Your task to perform on an android device: Add "razer blade" to the cart on bestbuy.com, then select checkout. Image 0: 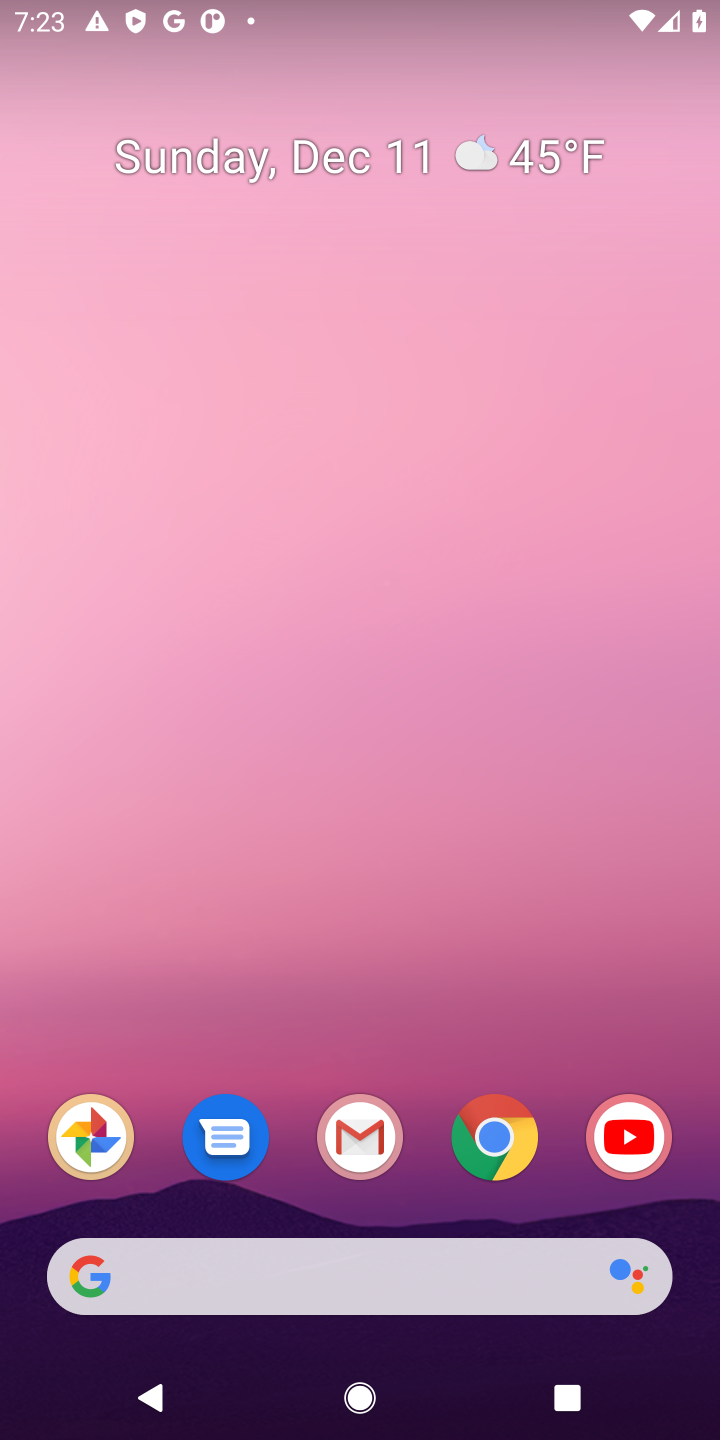
Step 0: click (513, 1167)
Your task to perform on an android device: Add "razer blade" to the cart on bestbuy.com, then select checkout. Image 1: 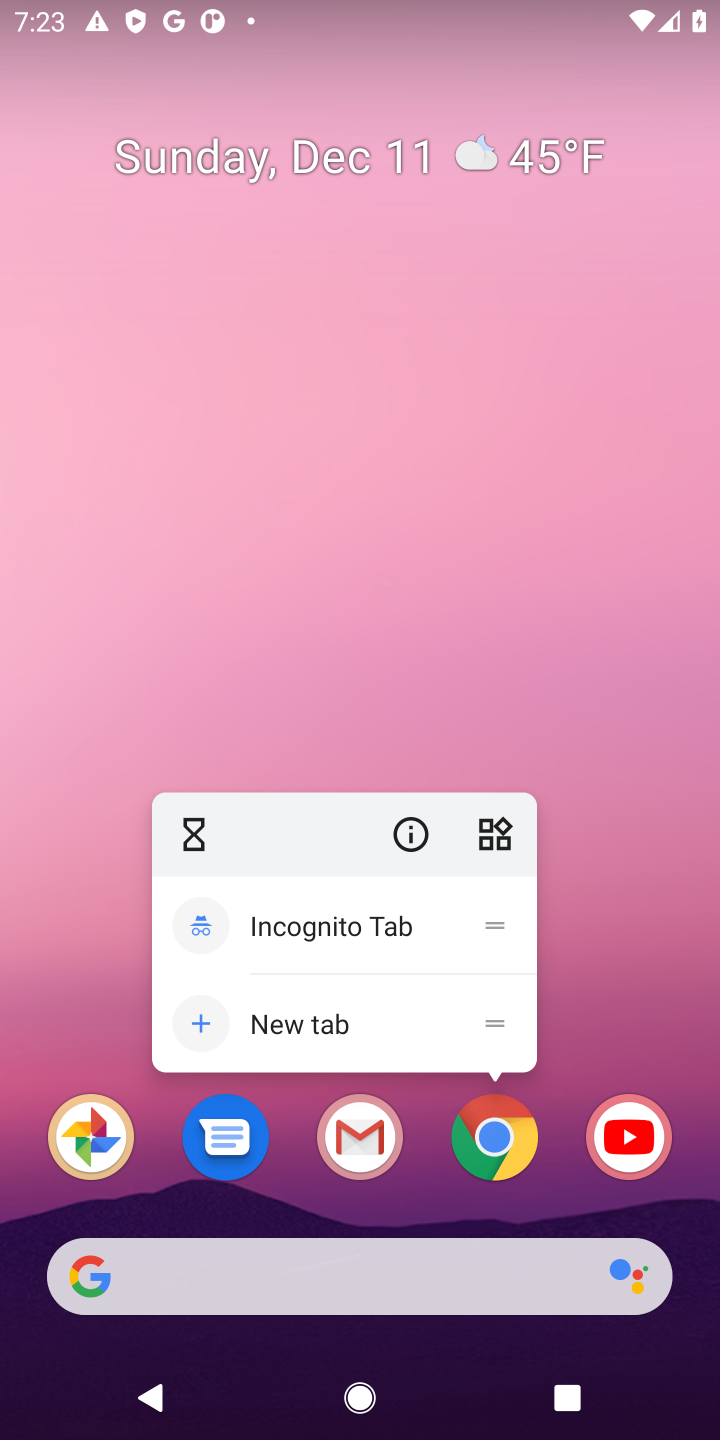
Step 1: click (367, 1031)
Your task to perform on an android device: Add "razer blade" to the cart on bestbuy.com, then select checkout. Image 2: 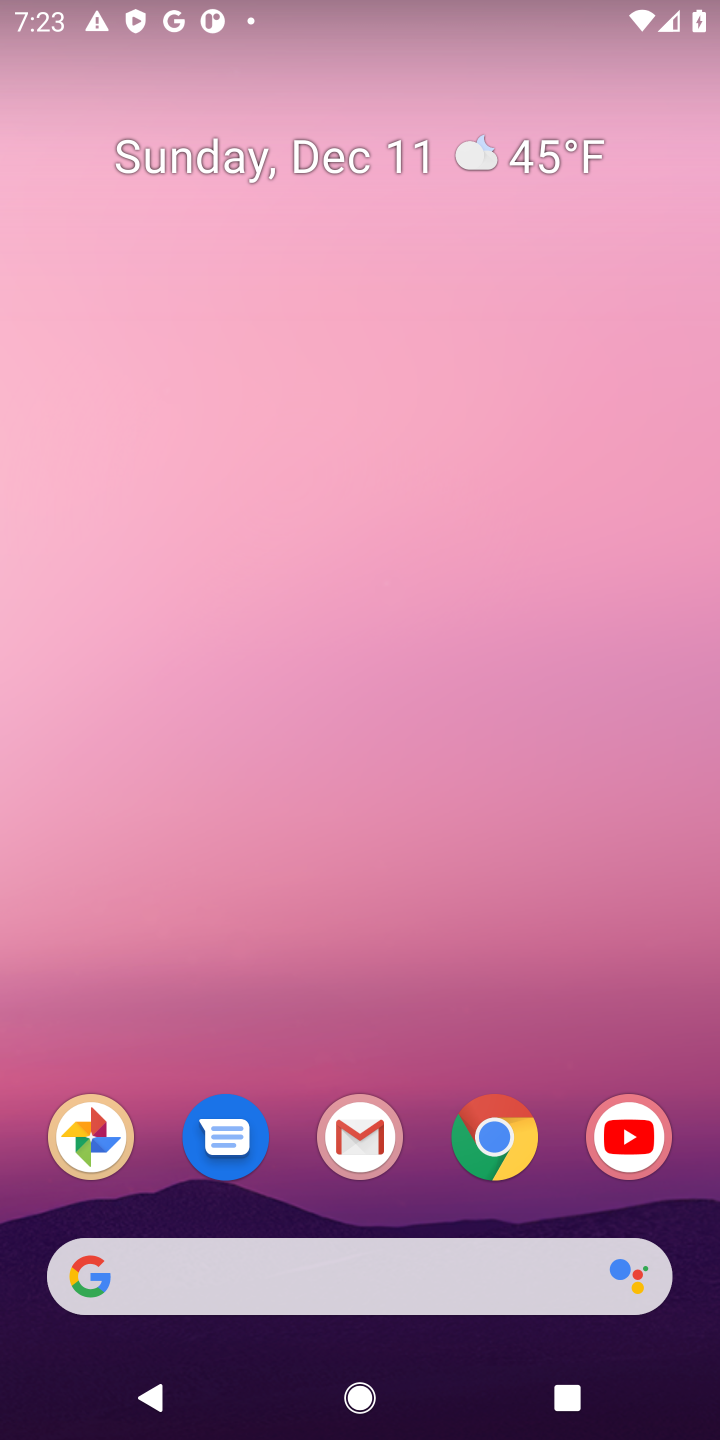
Step 2: click (496, 1150)
Your task to perform on an android device: Add "razer blade" to the cart on bestbuy.com, then select checkout. Image 3: 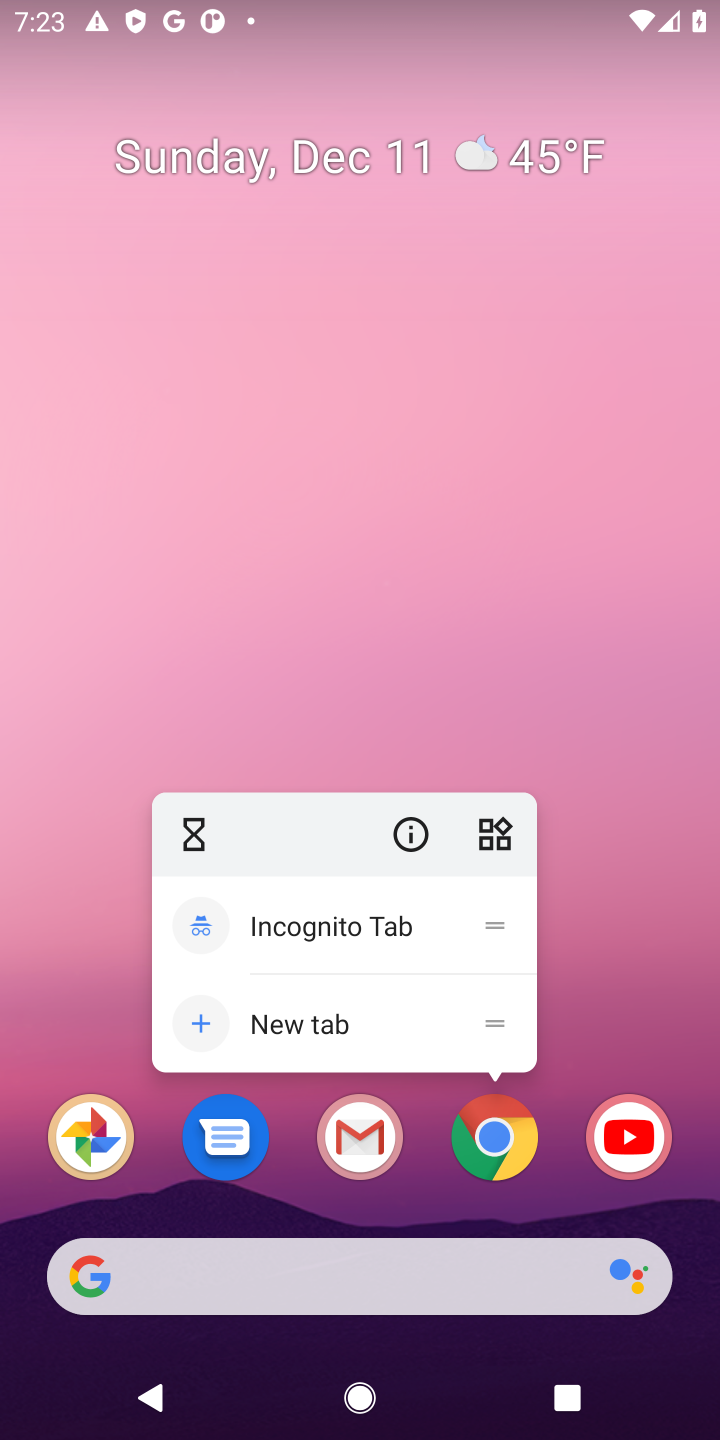
Step 3: click (310, 1037)
Your task to perform on an android device: Add "razer blade" to the cart on bestbuy.com, then select checkout. Image 4: 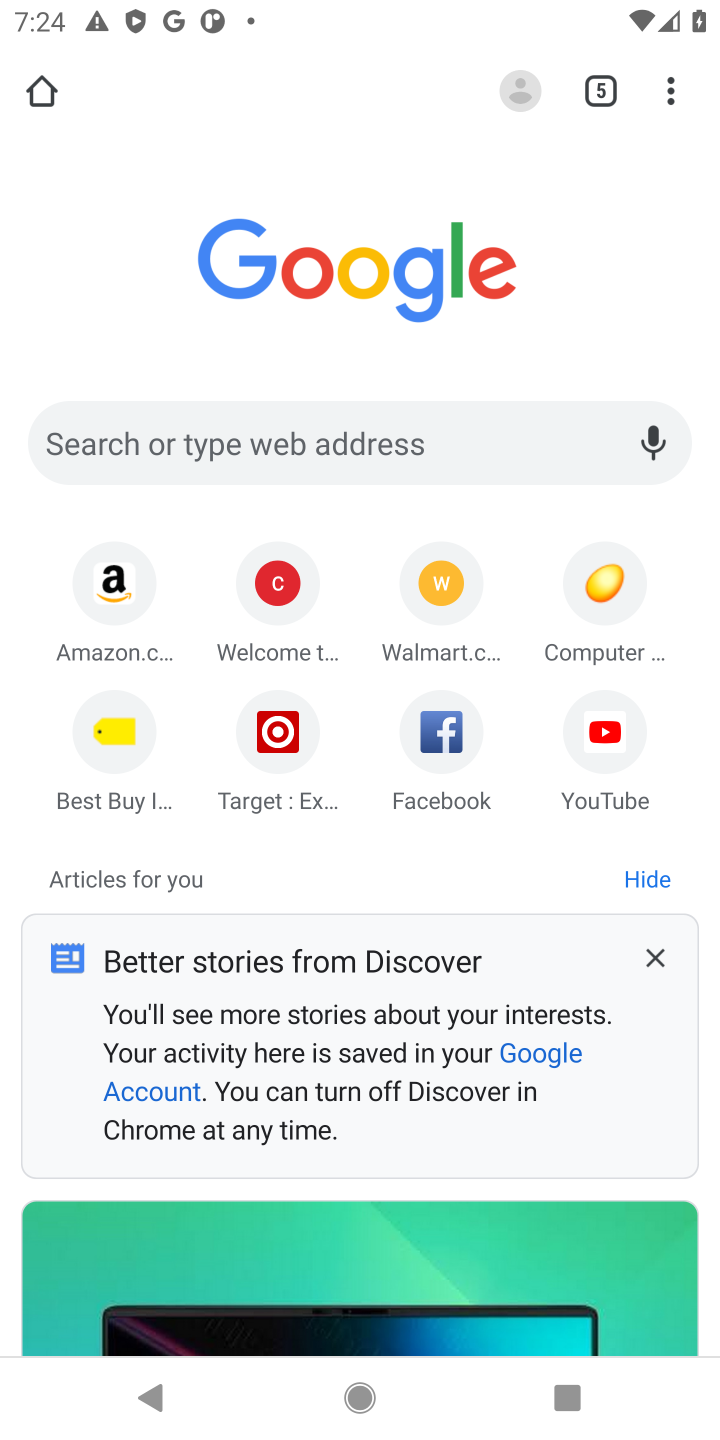
Step 4: click (111, 745)
Your task to perform on an android device: Add "razer blade" to the cart on bestbuy.com, then select checkout. Image 5: 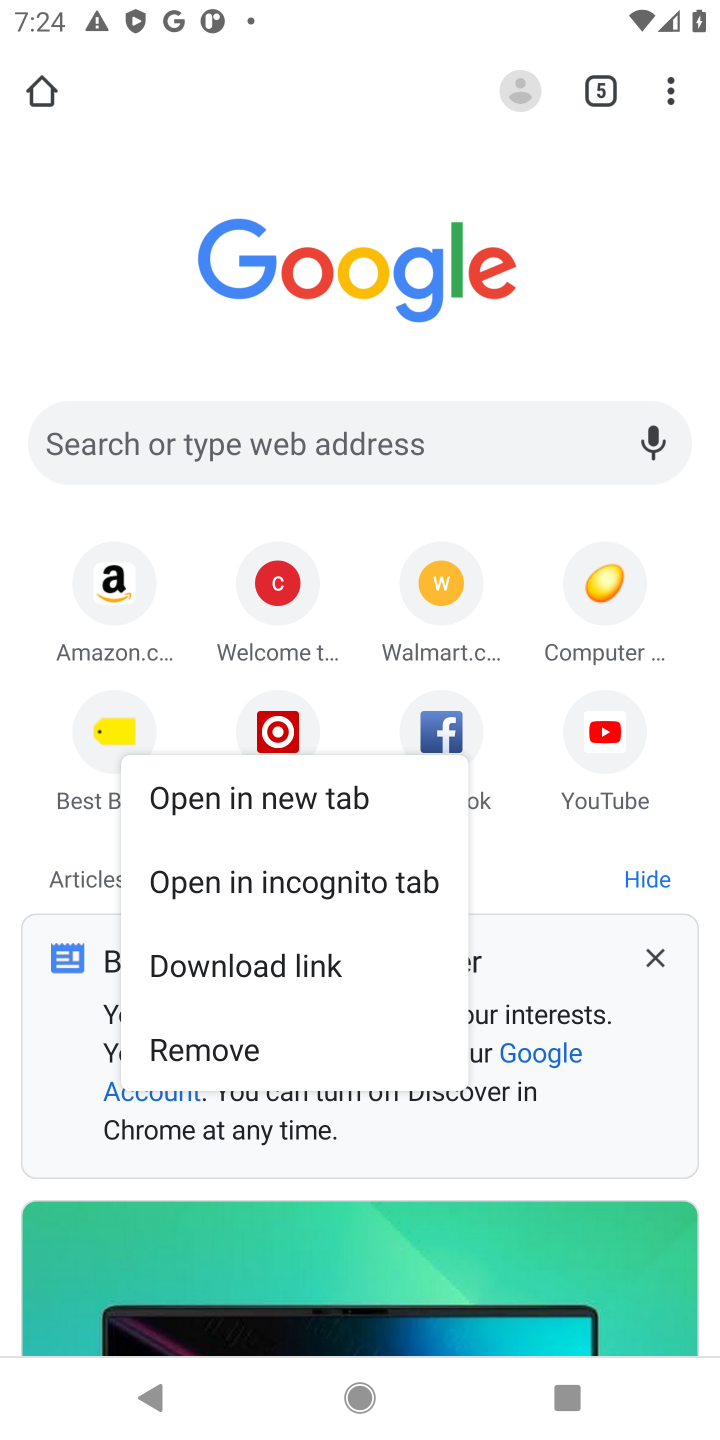
Step 5: click (101, 743)
Your task to perform on an android device: Add "razer blade" to the cart on bestbuy.com, then select checkout. Image 6: 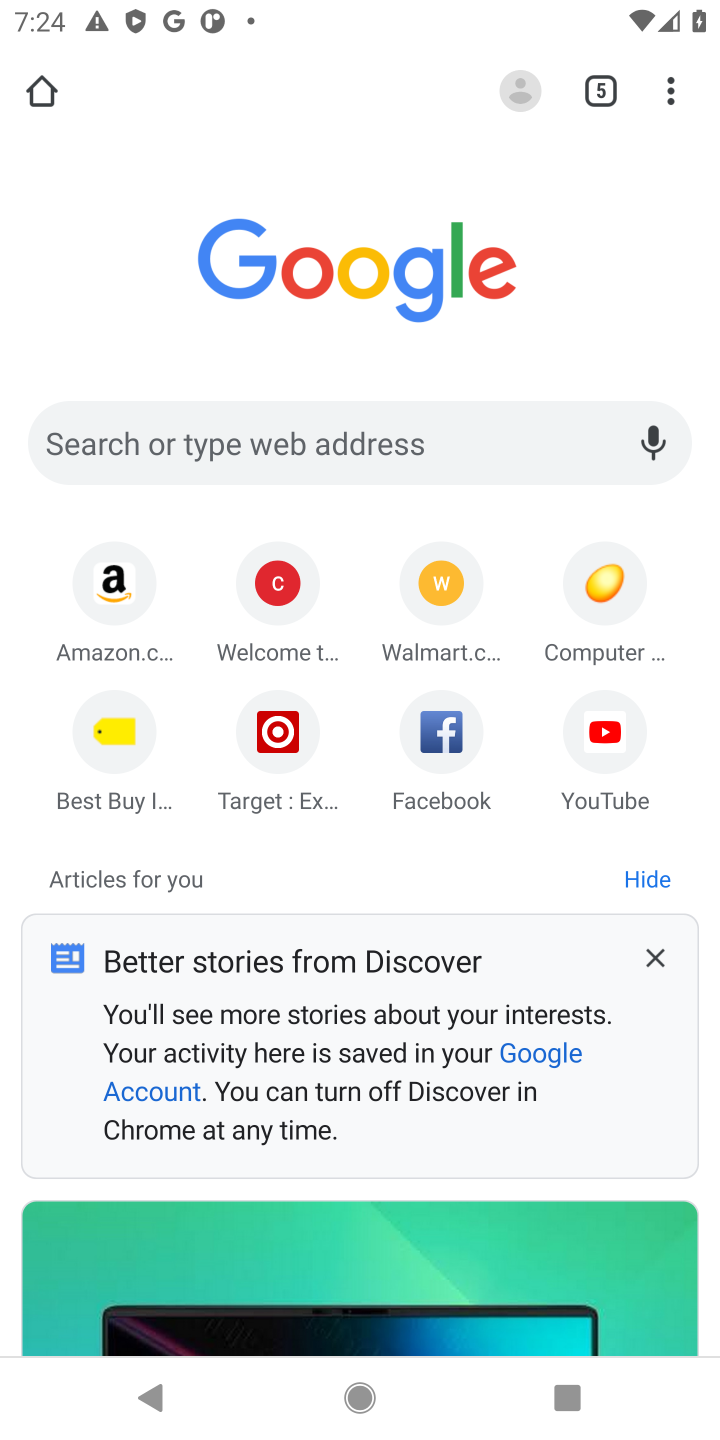
Step 6: click (101, 743)
Your task to perform on an android device: Add "razer blade" to the cart on bestbuy.com, then select checkout. Image 7: 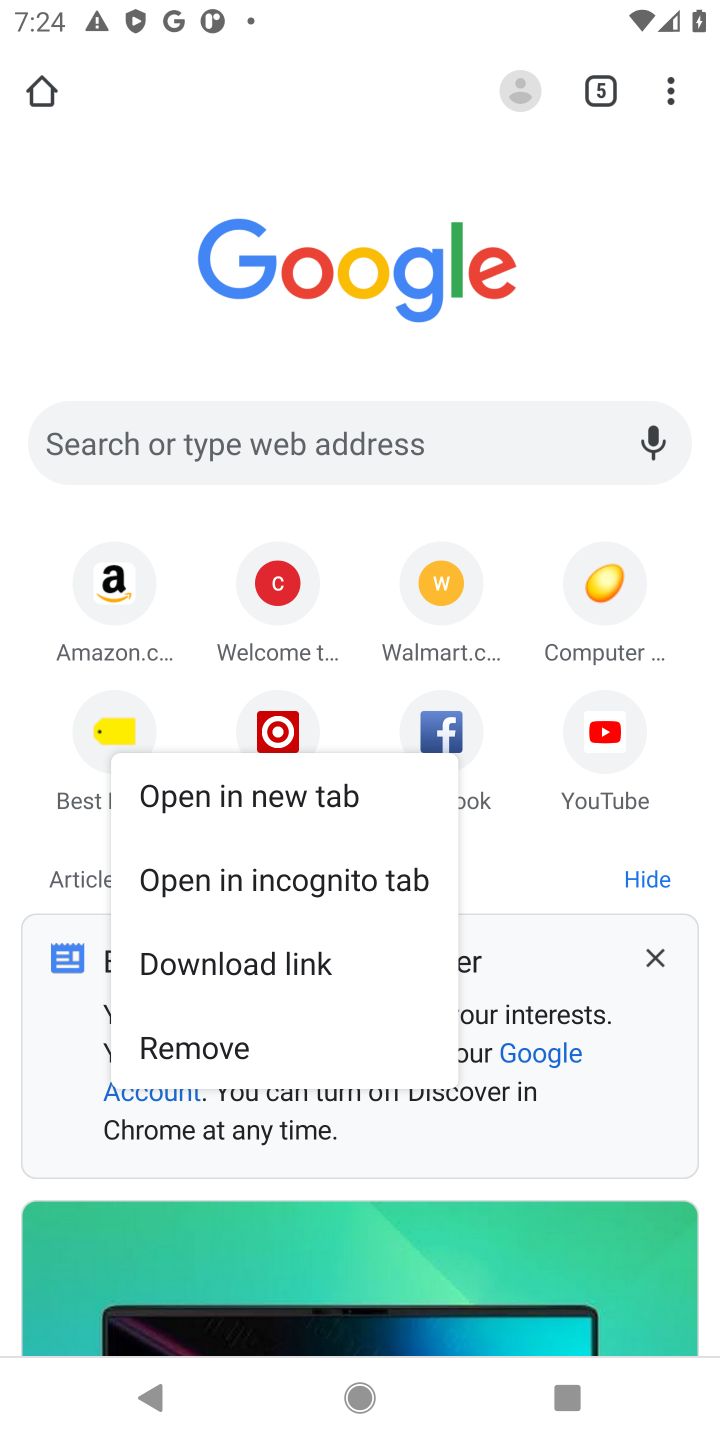
Step 7: click (101, 743)
Your task to perform on an android device: Add "razer blade" to the cart on bestbuy.com, then select checkout. Image 8: 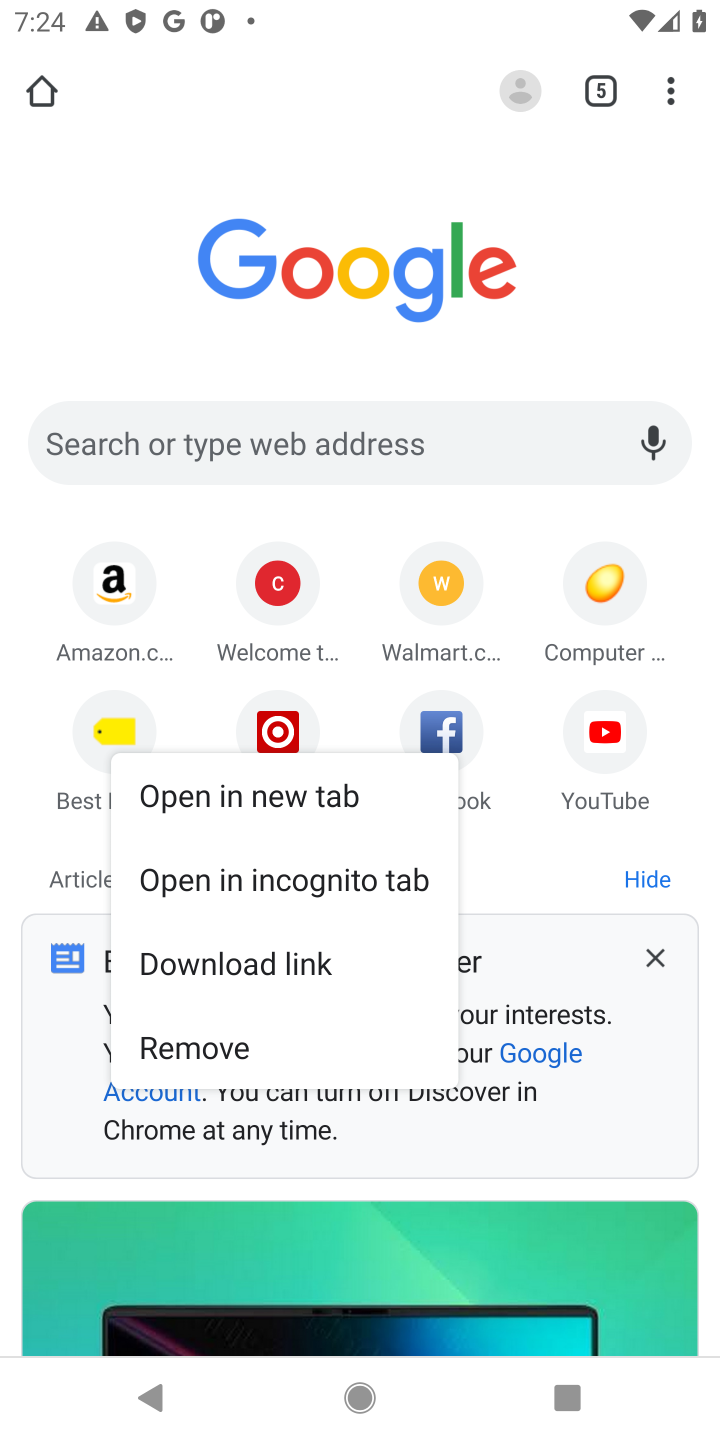
Step 8: click (254, 809)
Your task to perform on an android device: Add "razer blade" to the cart on bestbuy.com, then select checkout. Image 9: 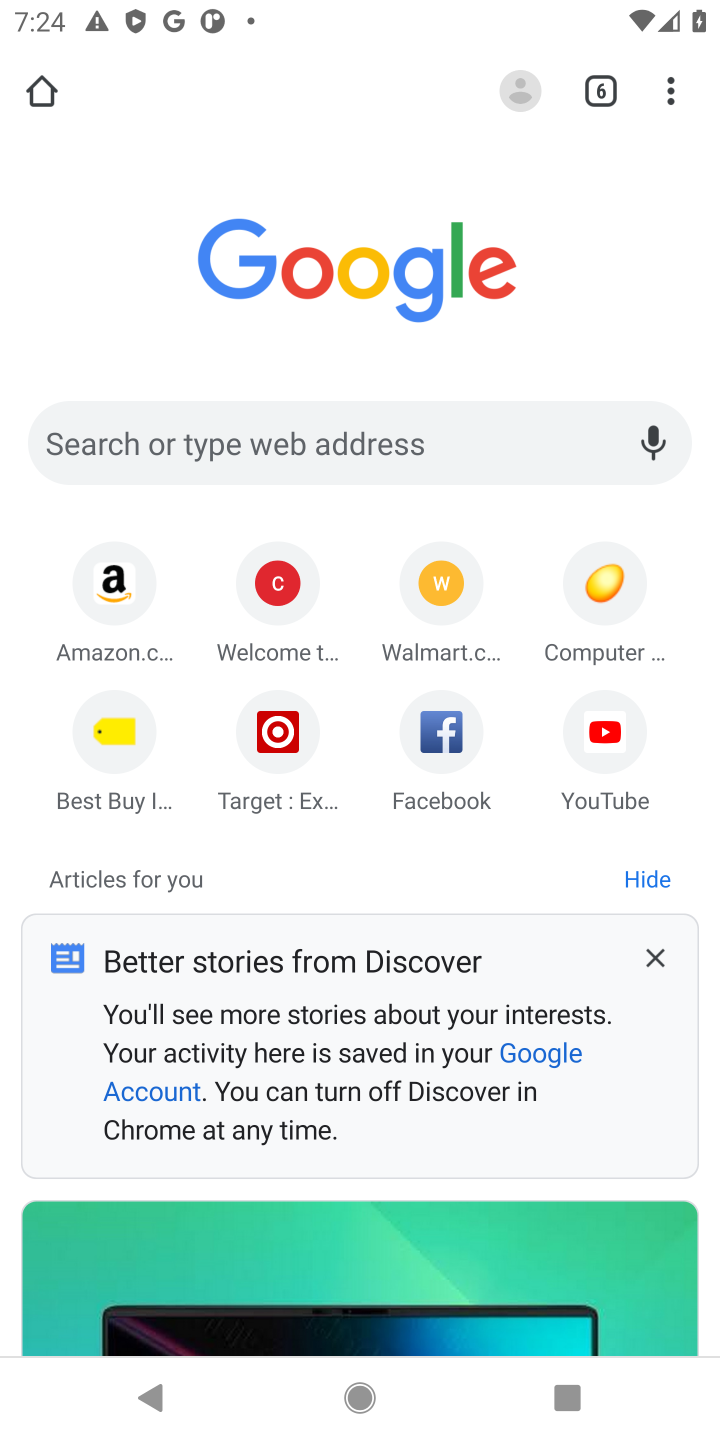
Step 9: click (117, 729)
Your task to perform on an android device: Add "razer blade" to the cart on bestbuy.com, then select checkout. Image 10: 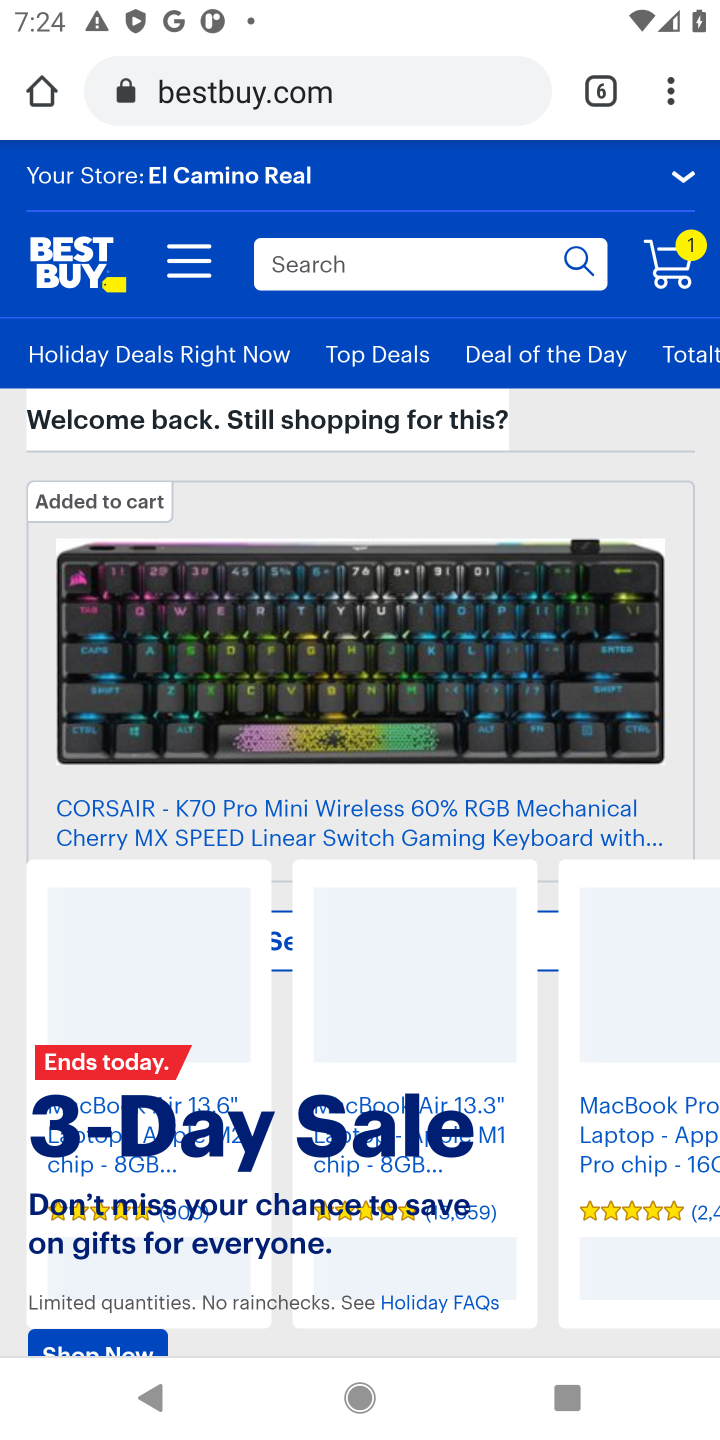
Step 10: click (356, 249)
Your task to perform on an android device: Add "razer blade" to the cart on bestbuy.com, then select checkout. Image 11: 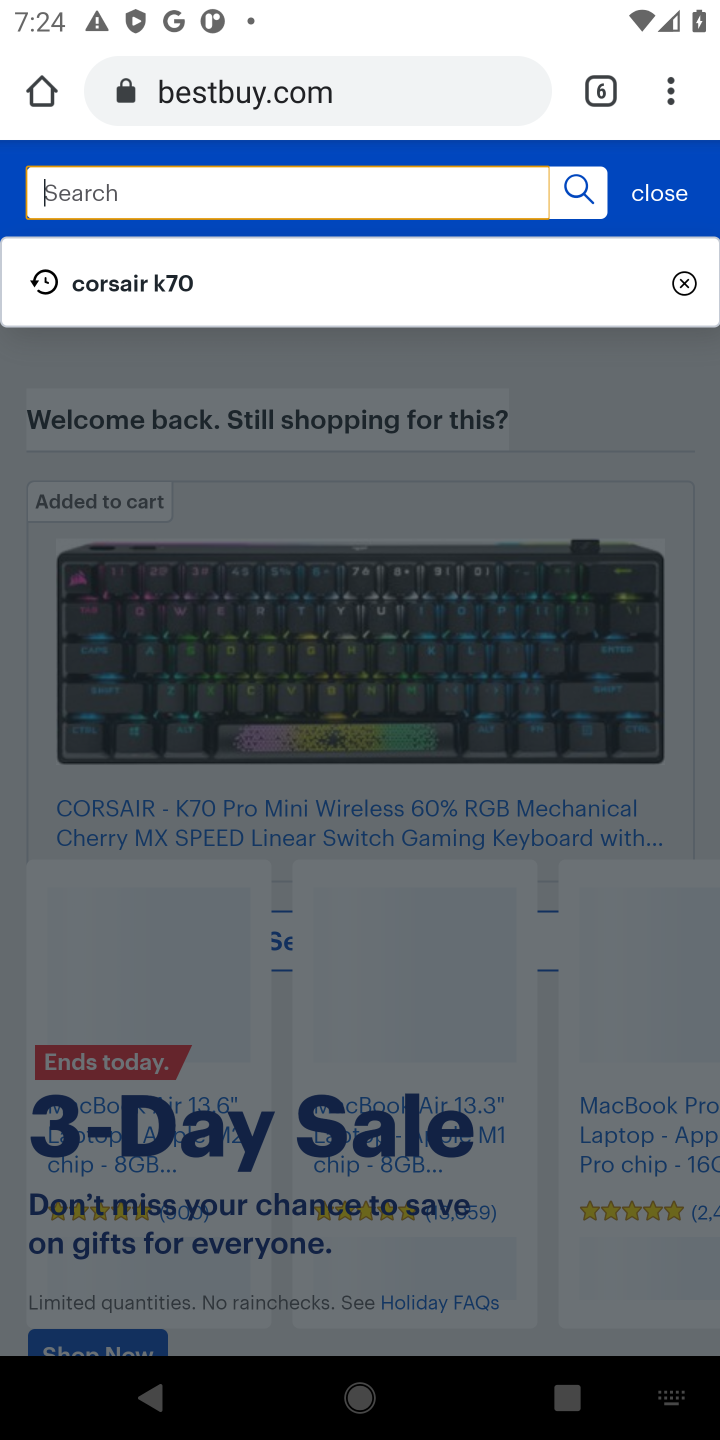
Step 11: type "razer blade"
Your task to perform on an android device: Add "razer blade" to the cart on bestbuy.com, then select checkout. Image 12: 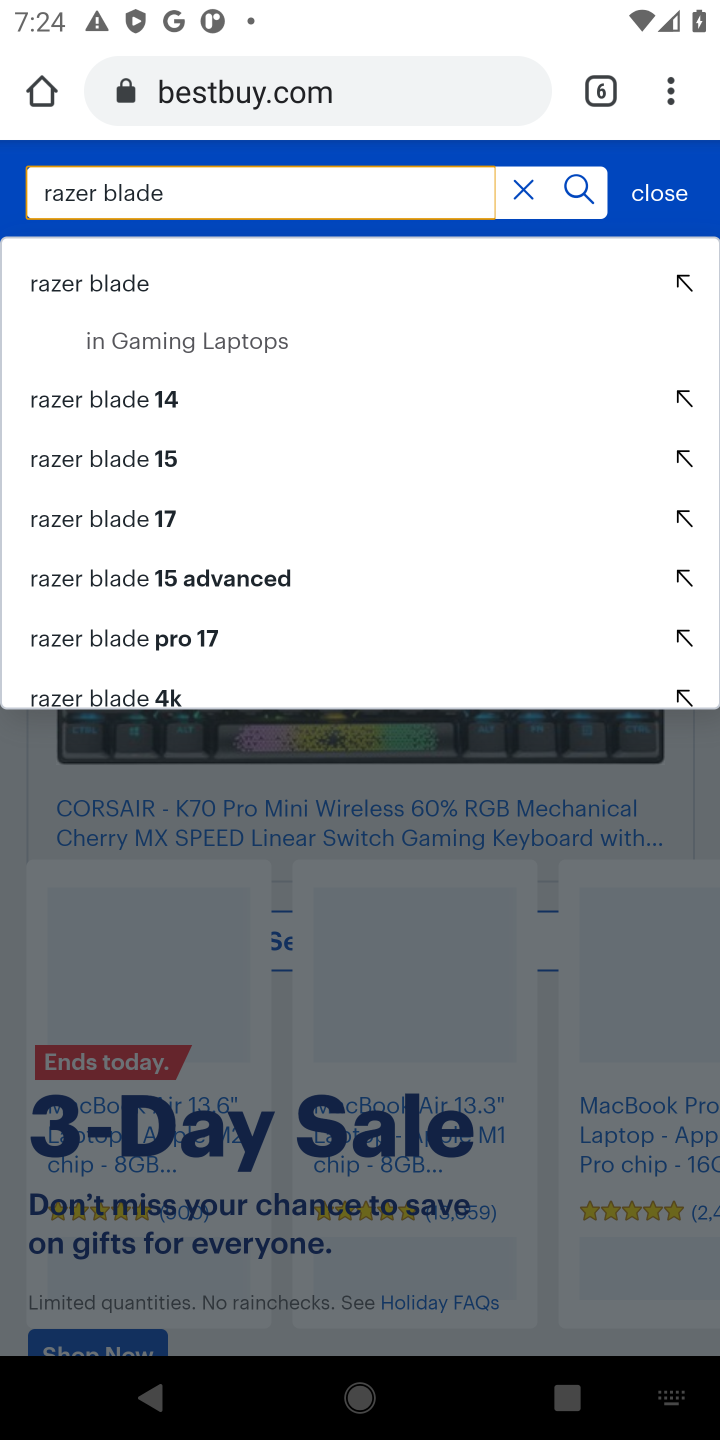
Step 12: click (581, 181)
Your task to perform on an android device: Add "razer blade" to the cart on bestbuy.com, then select checkout. Image 13: 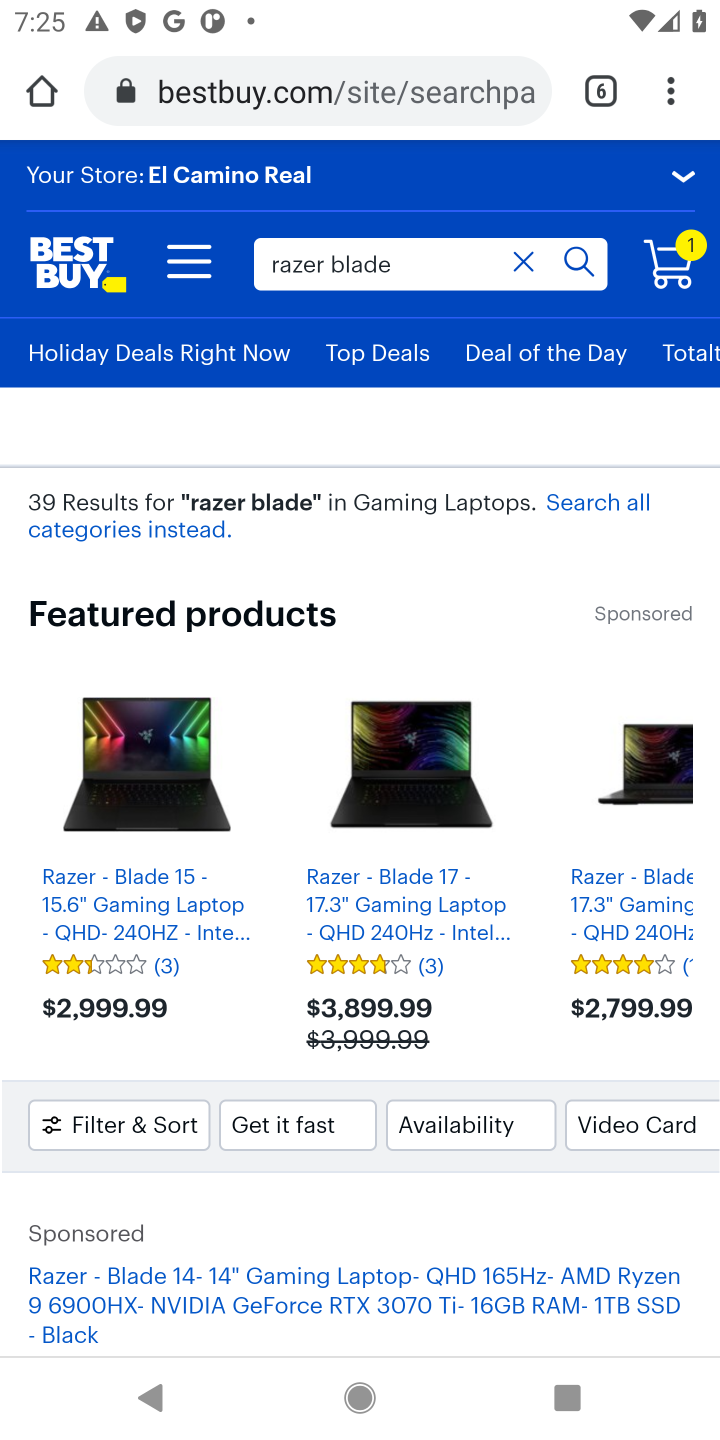
Step 13: click (160, 916)
Your task to perform on an android device: Add "razer blade" to the cart on bestbuy.com, then select checkout. Image 14: 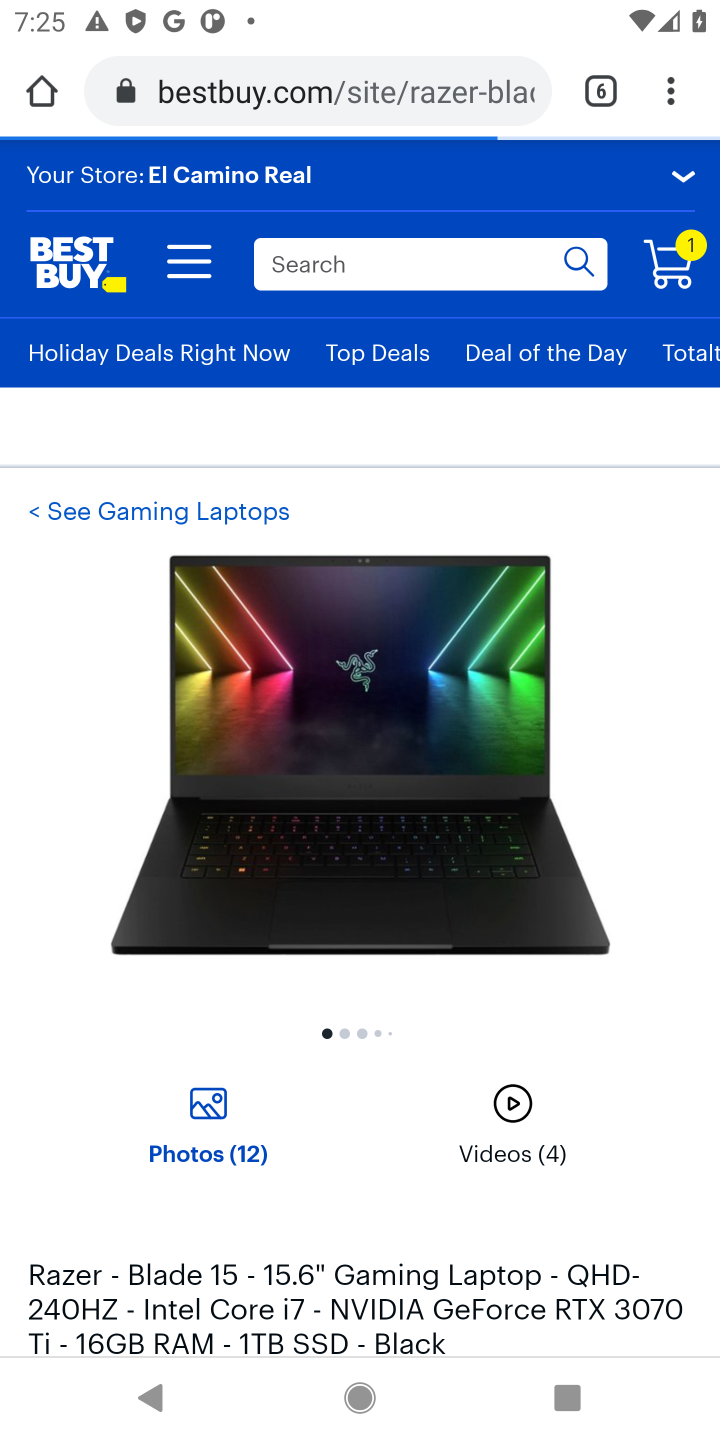
Step 14: drag from (278, 1238) to (279, 323)
Your task to perform on an android device: Add "razer blade" to the cart on bestbuy.com, then select checkout. Image 15: 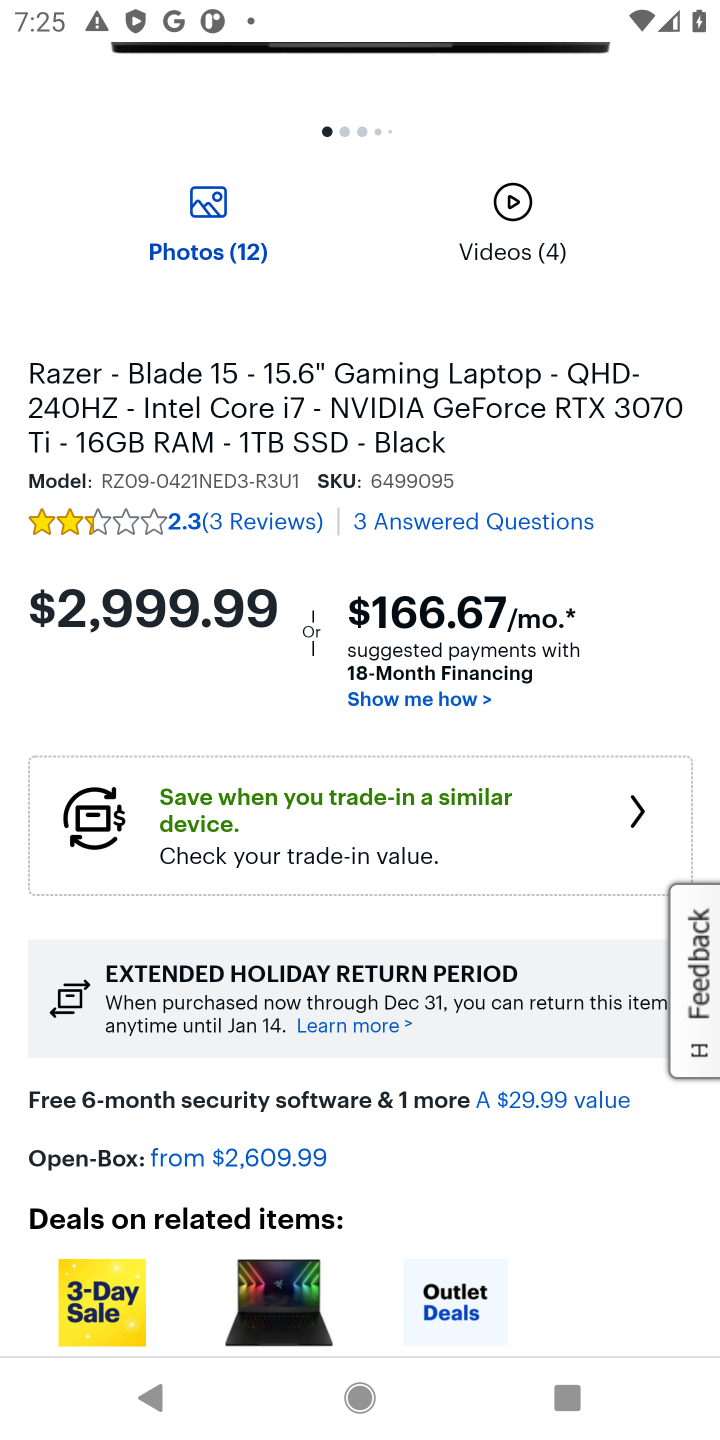
Step 15: drag from (280, 1142) to (239, 311)
Your task to perform on an android device: Add "razer blade" to the cart on bestbuy.com, then select checkout. Image 16: 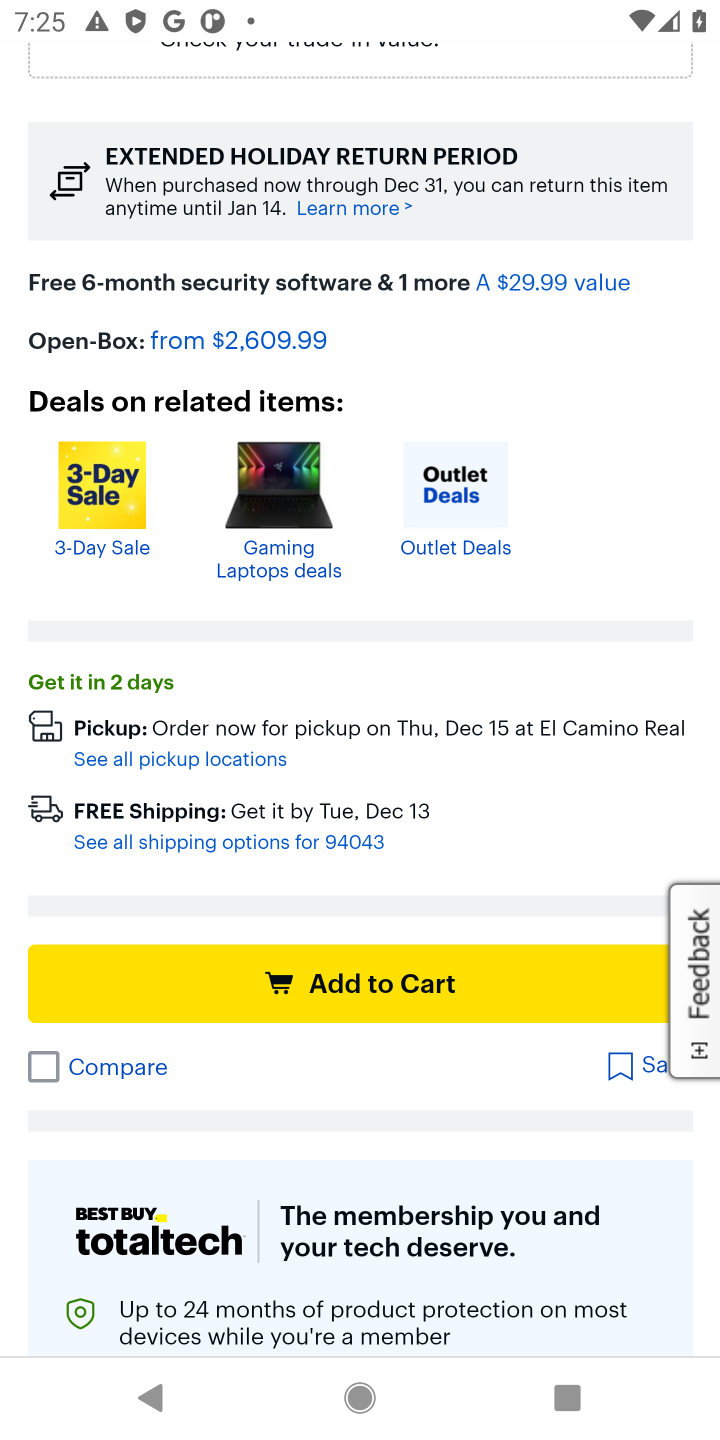
Step 16: click (246, 955)
Your task to perform on an android device: Add "razer blade" to the cart on bestbuy.com, then select checkout. Image 17: 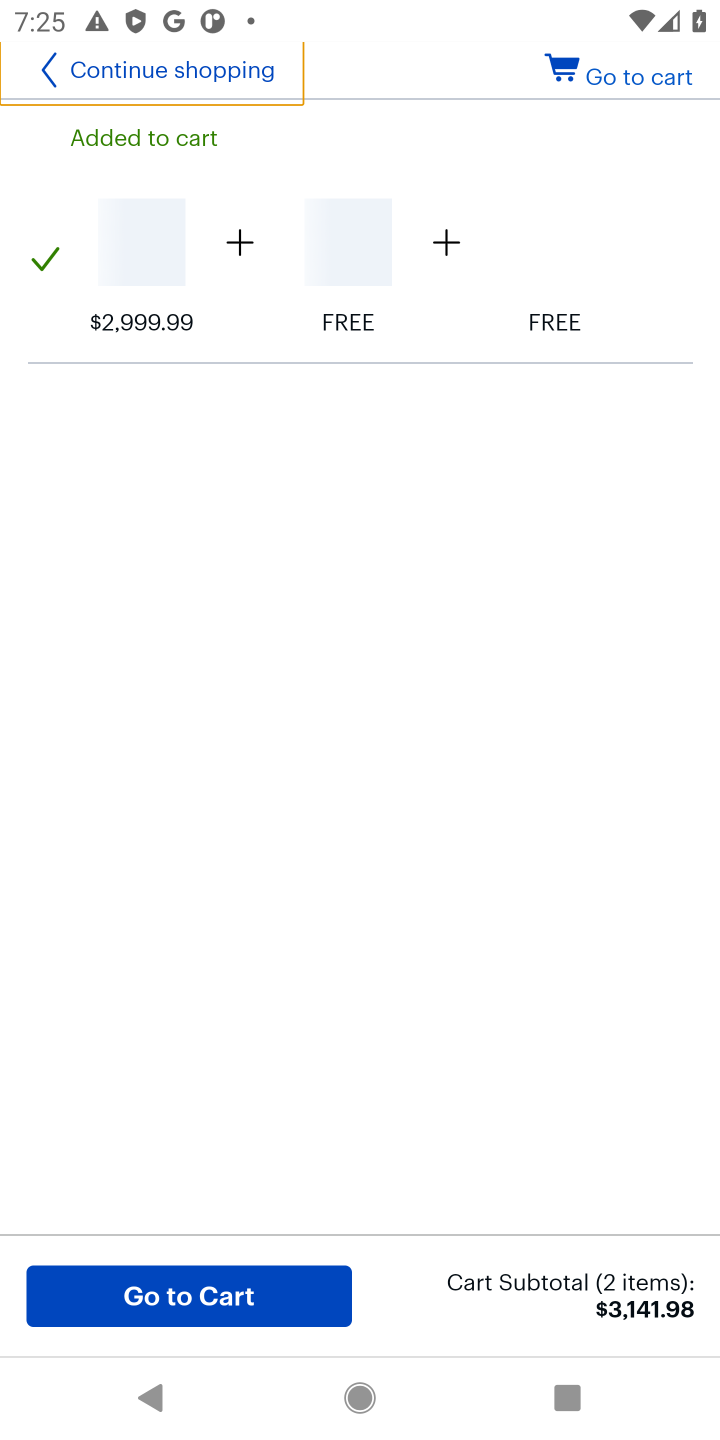
Step 17: click (180, 1284)
Your task to perform on an android device: Add "razer blade" to the cart on bestbuy.com, then select checkout. Image 18: 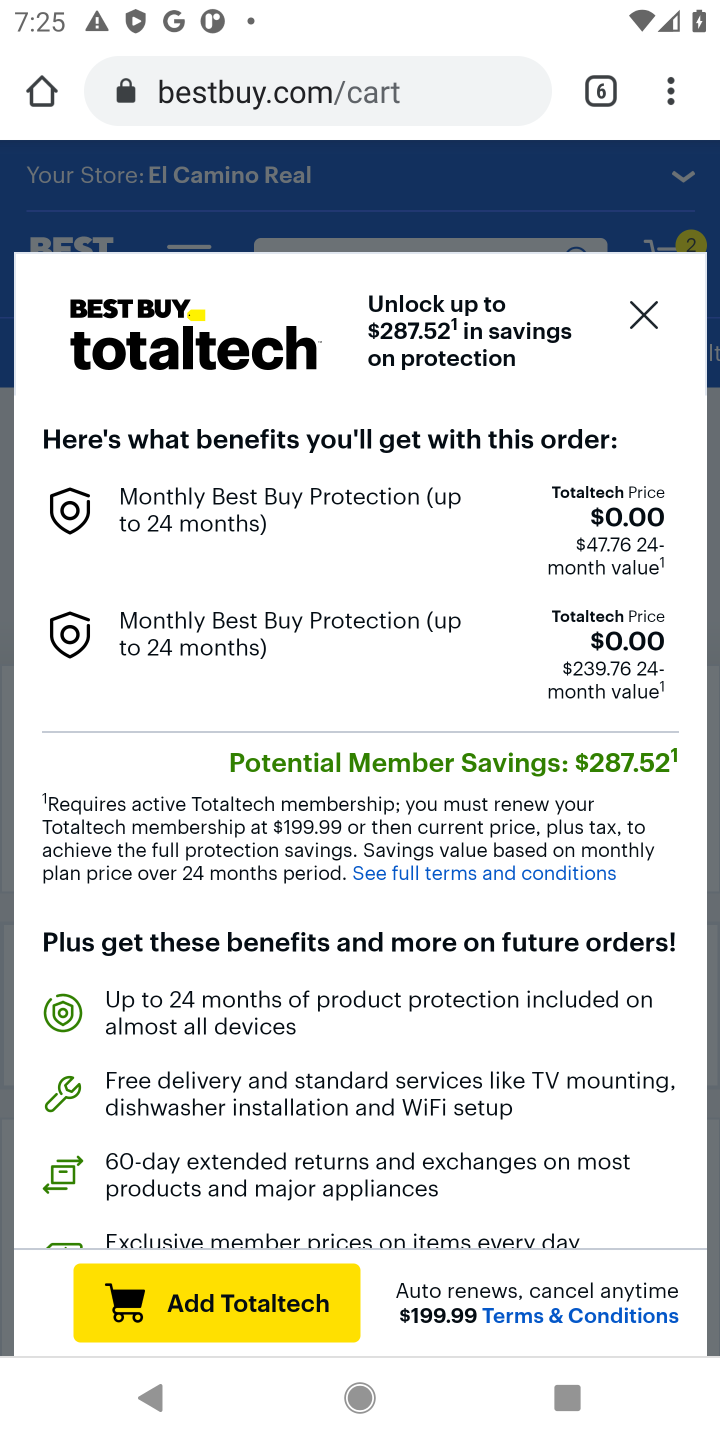
Step 18: click (441, 812)
Your task to perform on an android device: Add "razer blade" to the cart on bestbuy.com, then select checkout. Image 19: 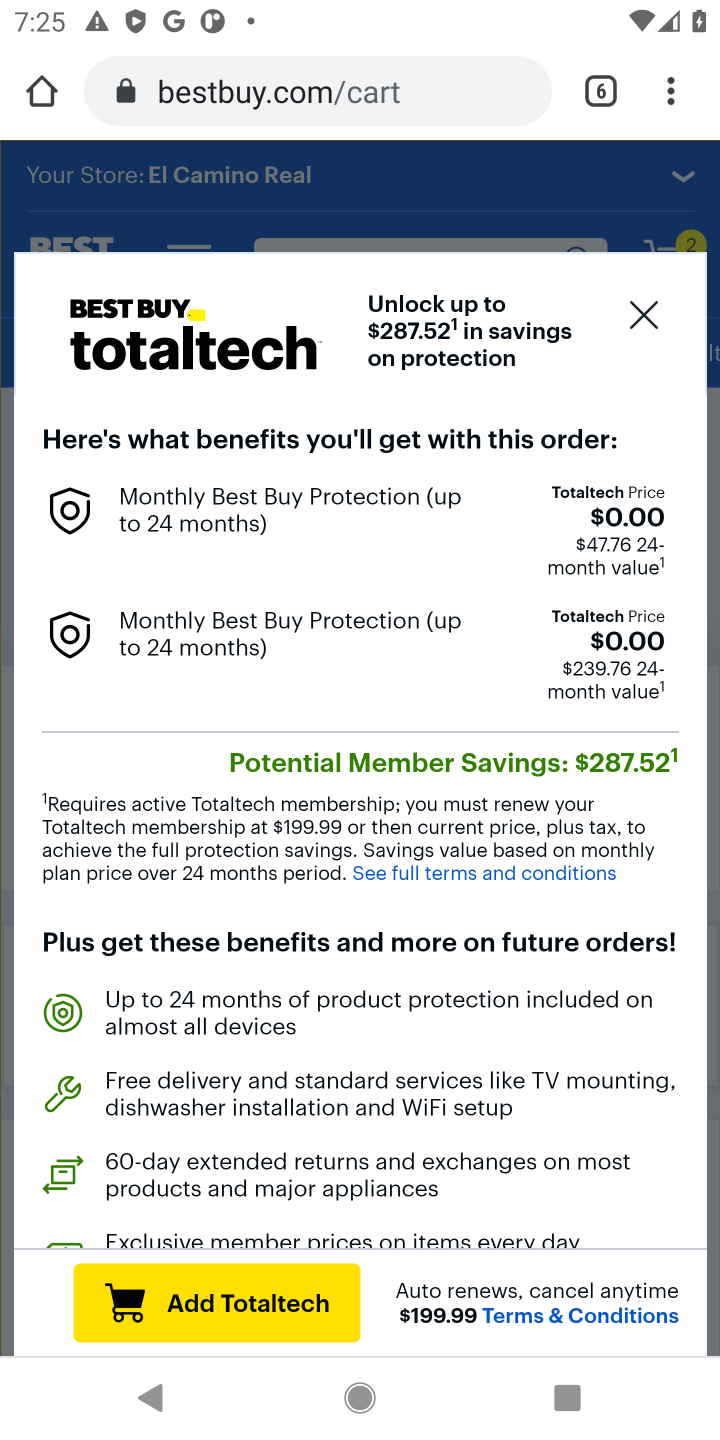
Step 19: click (634, 330)
Your task to perform on an android device: Add "razer blade" to the cart on bestbuy.com, then select checkout. Image 20: 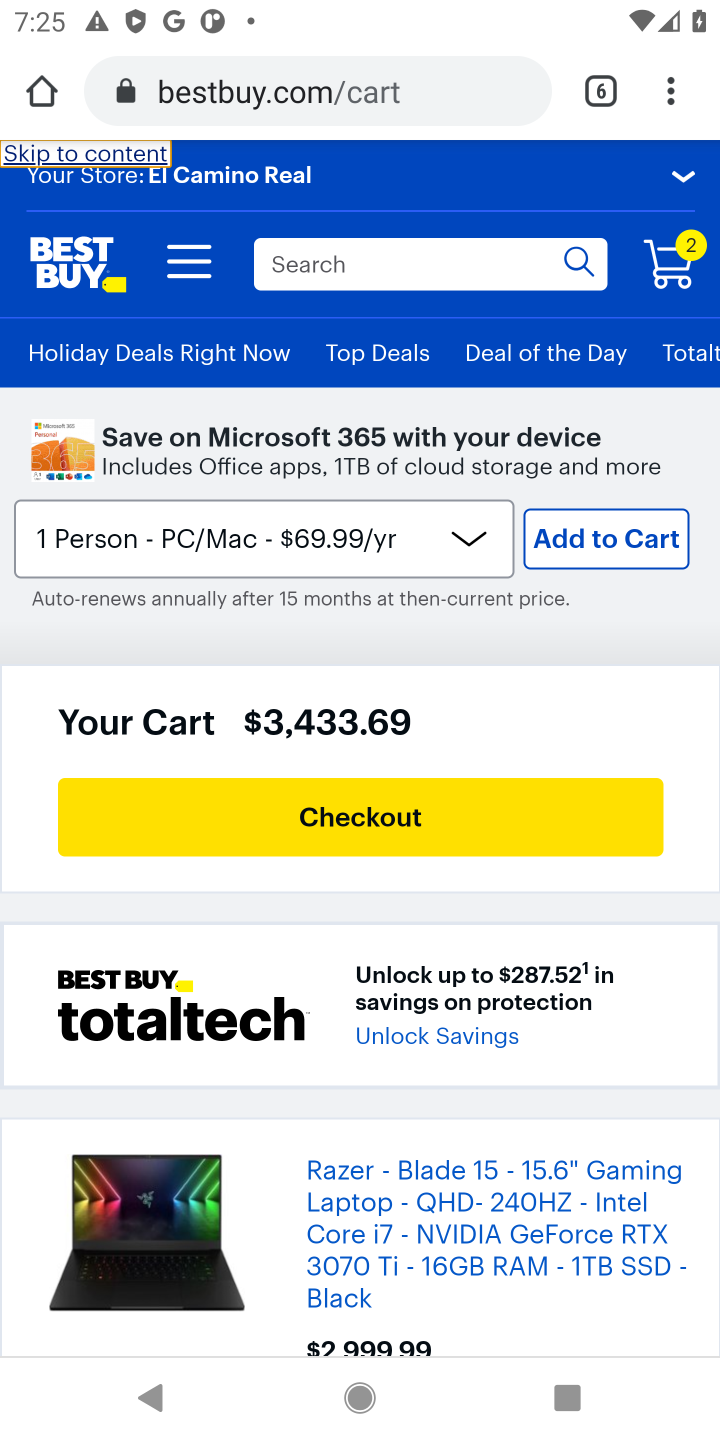
Step 20: click (307, 833)
Your task to perform on an android device: Add "razer blade" to the cart on bestbuy.com, then select checkout. Image 21: 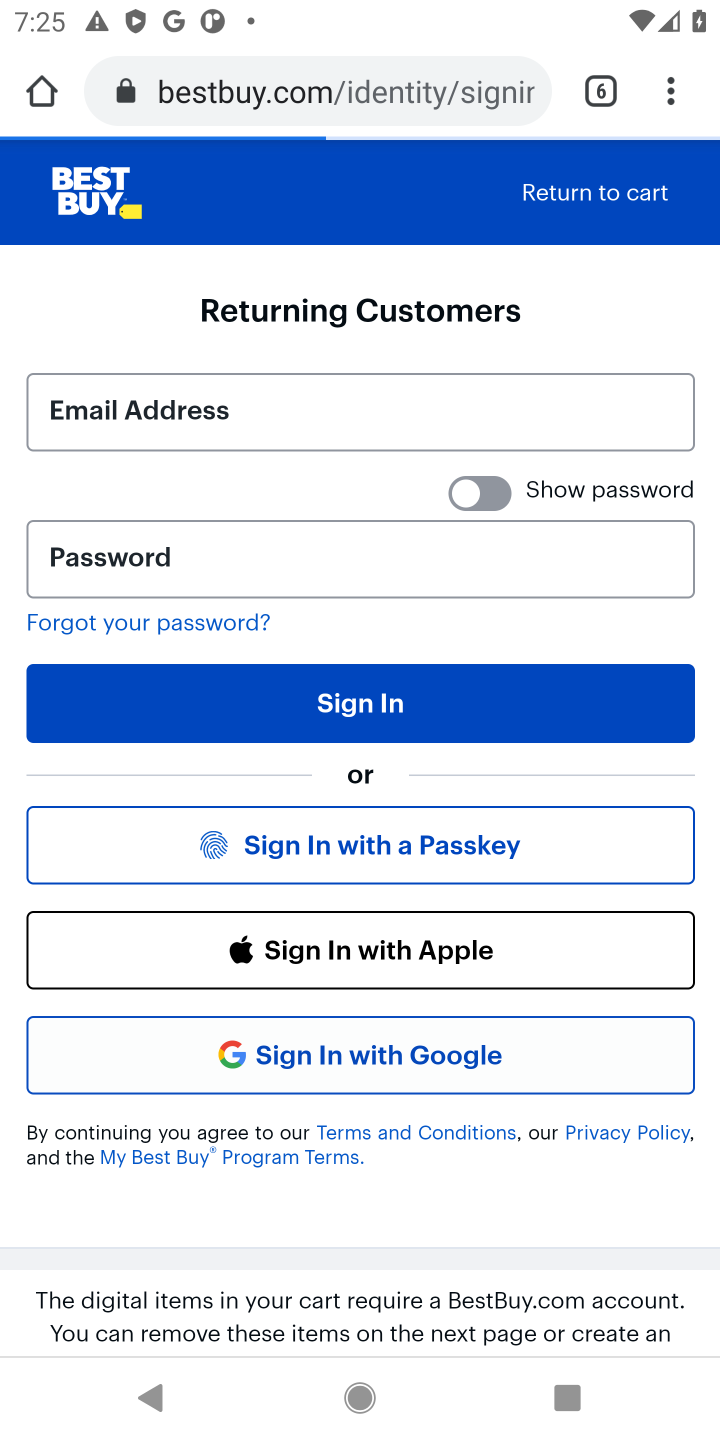
Step 21: task complete